Your task to perform on an android device: move a message to another label in the gmail app Image 0: 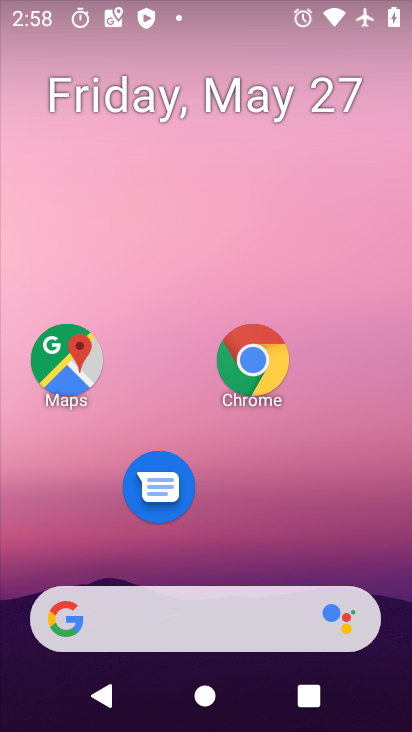
Step 0: drag from (248, 525) to (259, 85)
Your task to perform on an android device: move a message to another label in the gmail app Image 1: 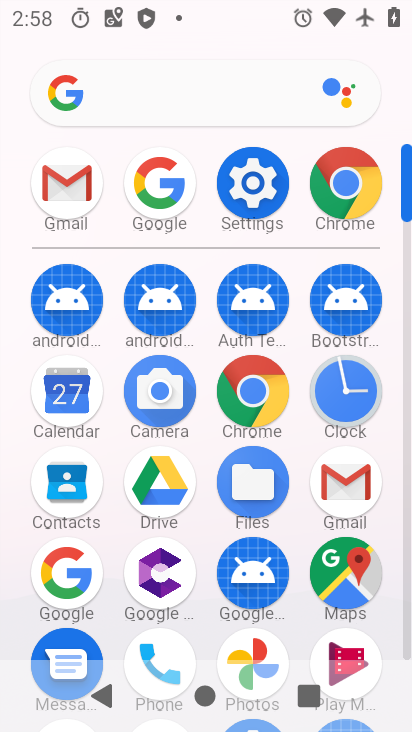
Step 1: click (69, 184)
Your task to perform on an android device: move a message to another label in the gmail app Image 2: 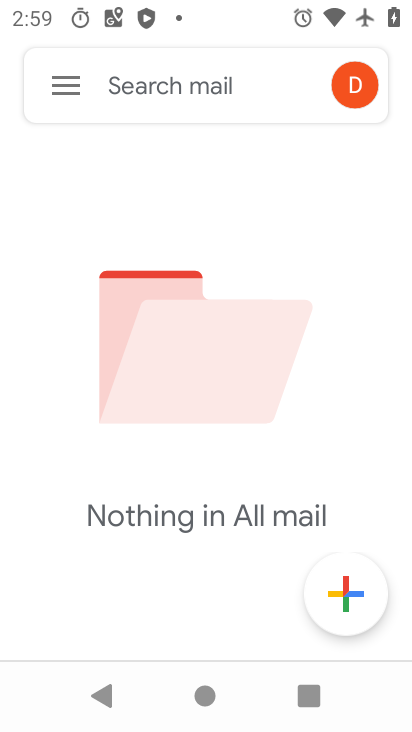
Step 2: task complete